Your task to perform on an android device: toggle show notifications on the lock screen Image 0: 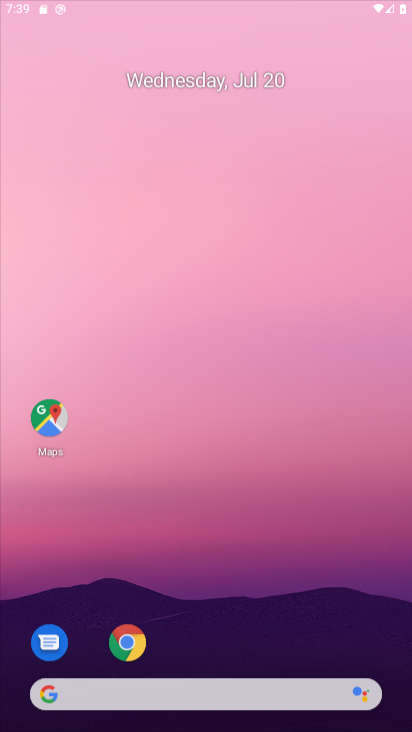
Step 0: drag from (186, 473) to (207, 320)
Your task to perform on an android device: toggle show notifications on the lock screen Image 1: 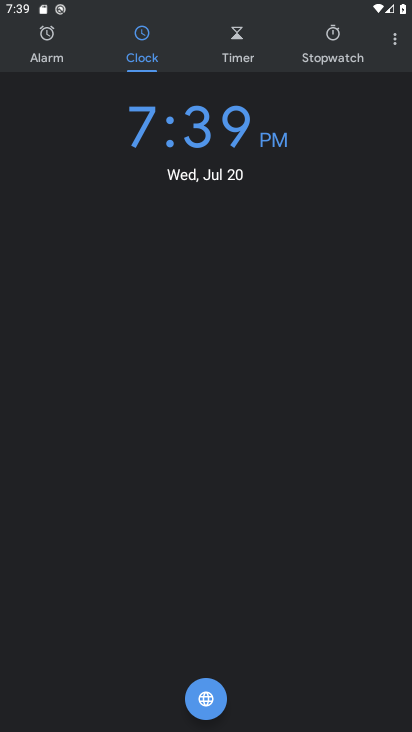
Step 1: press home button
Your task to perform on an android device: toggle show notifications on the lock screen Image 2: 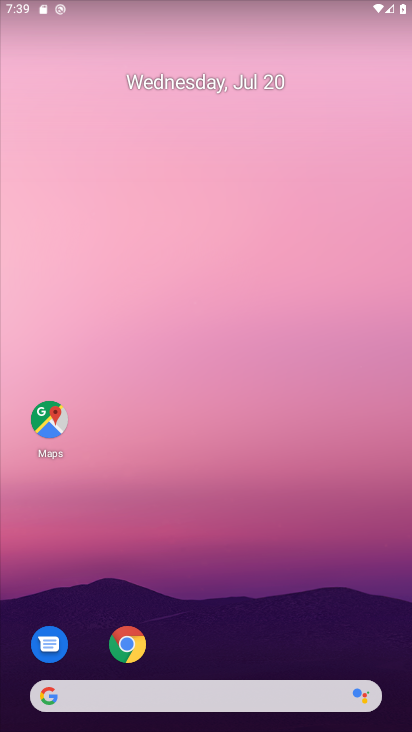
Step 2: drag from (173, 670) to (173, 255)
Your task to perform on an android device: toggle show notifications on the lock screen Image 3: 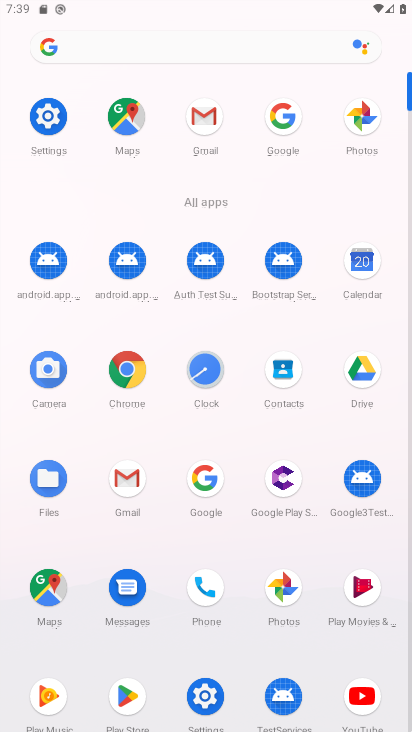
Step 3: click (36, 119)
Your task to perform on an android device: toggle show notifications on the lock screen Image 4: 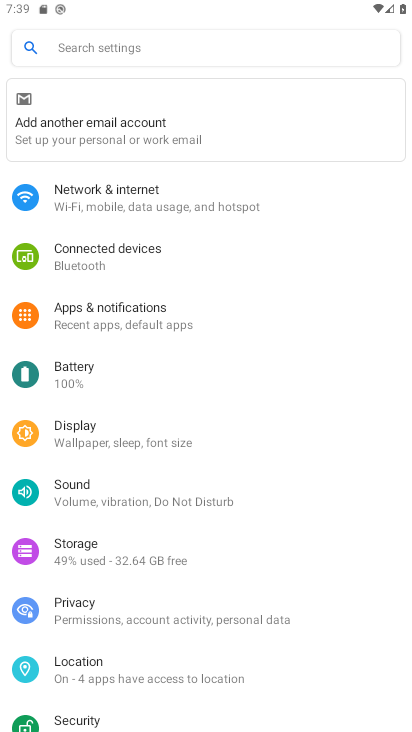
Step 4: click (68, 625)
Your task to perform on an android device: toggle show notifications on the lock screen Image 5: 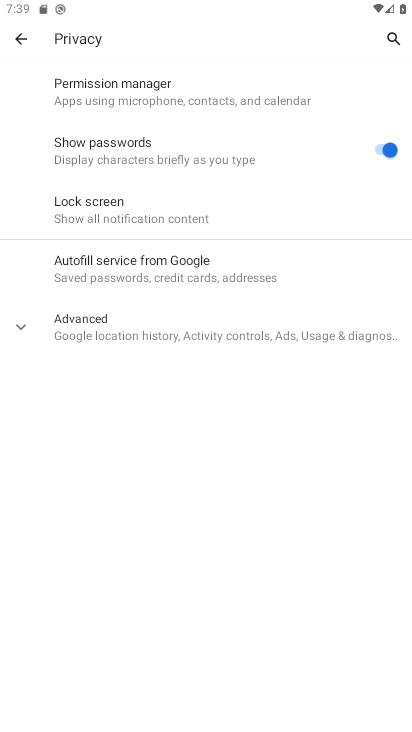
Step 5: click (99, 198)
Your task to perform on an android device: toggle show notifications on the lock screen Image 6: 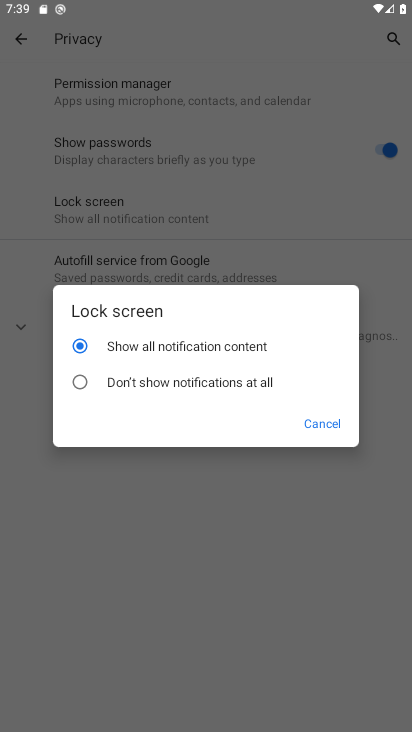
Step 6: click (140, 379)
Your task to perform on an android device: toggle show notifications on the lock screen Image 7: 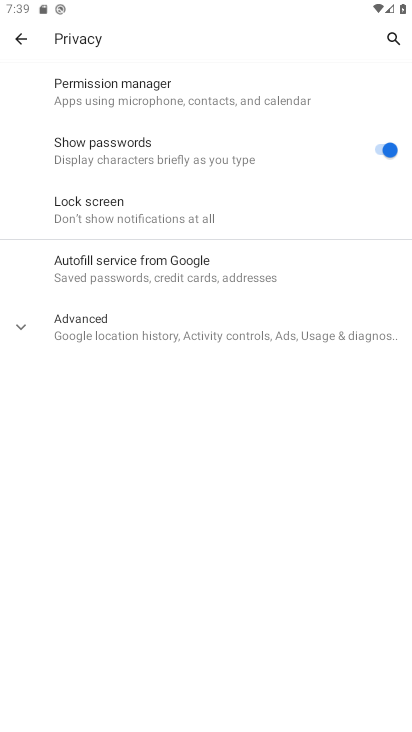
Step 7: task complete